Your task to perform on an android device: Open Google Maps Image 0: 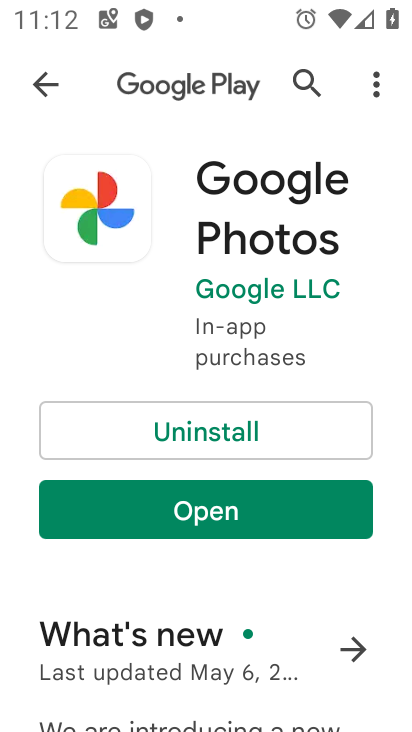
Step 0: press home button
Your task to perform on an android device: Open Google Maps Image 1: 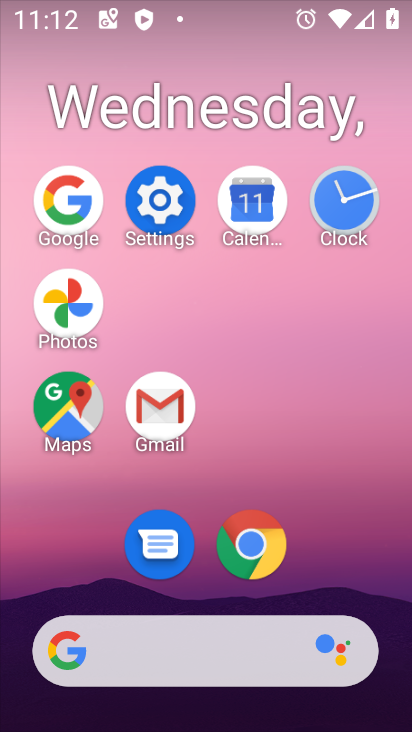
Step 1: click (65, 435)
Your task to perform on an android device: Open Google Maps Image 2: 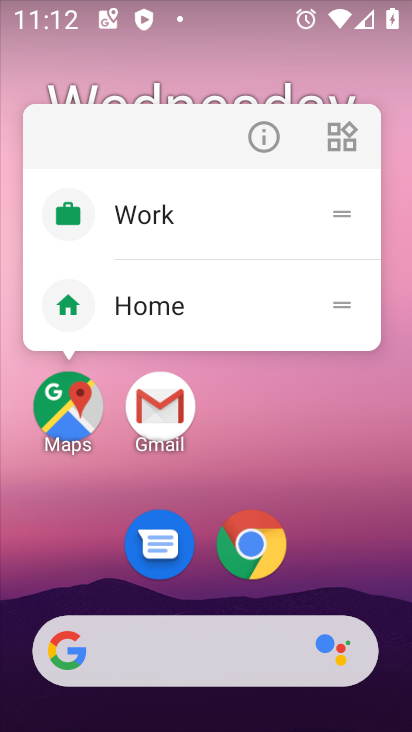
Step 2: click (78, 377)
Your task to perform on an android device: Open Google Maps Image 3: 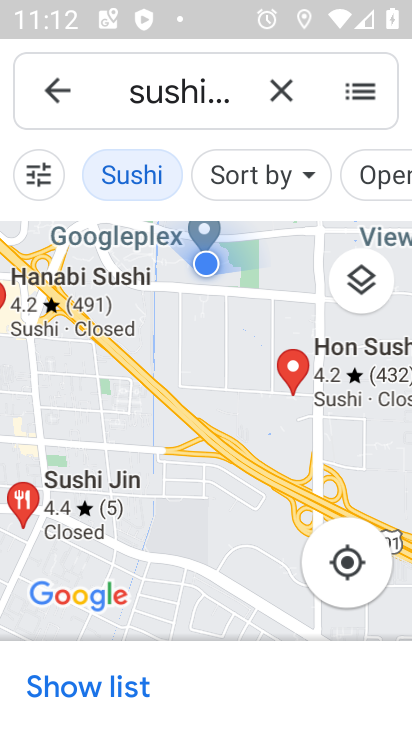
Step 3: task complete